Your task to perform on an android device: check out phone information Image 0: 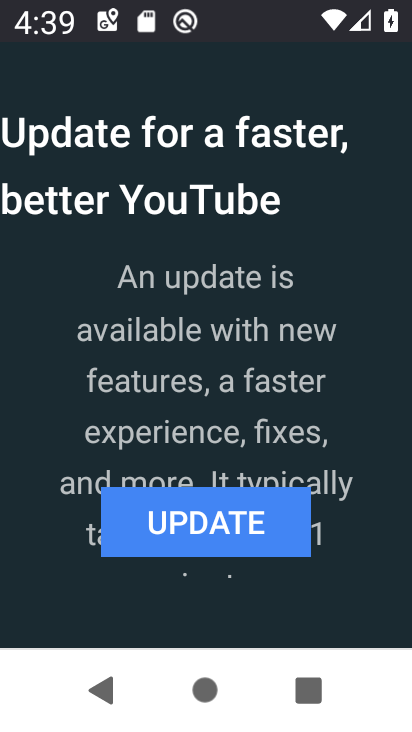
Step 0: press home button
Your task to perform on an android device: check out phone information Image 1: 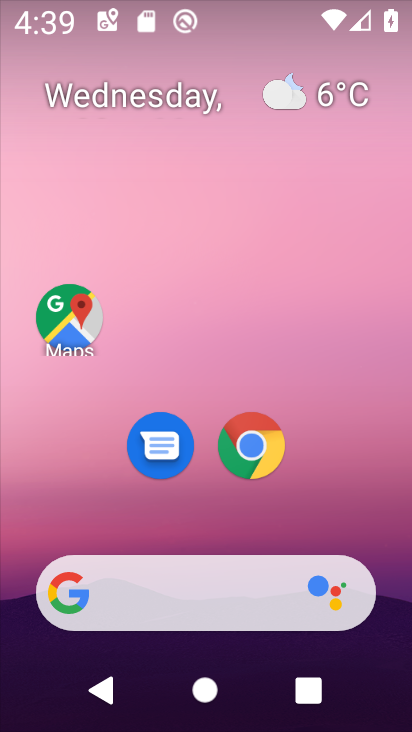
Step 1: drag from (203, 541) to (233, 78)
Your task to perform on an android device: check out phone information Image 2: 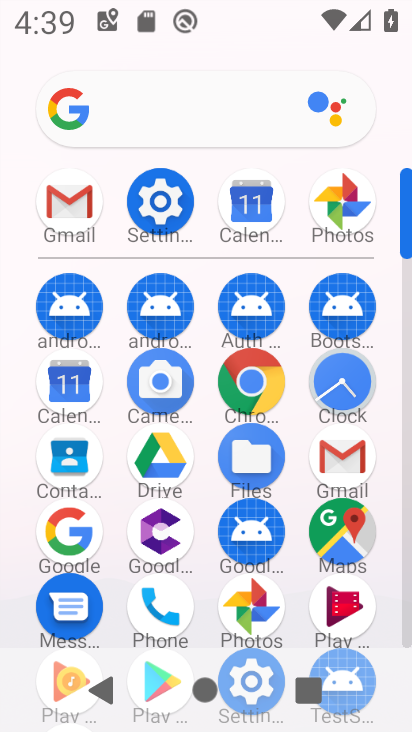
Step 2: click (158, 216)
Your task to perform on an android device: check out phone information Image 3: 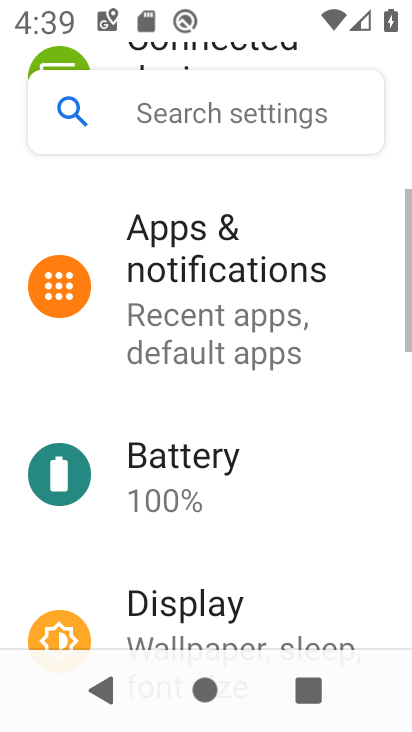
Step 3: drag from (187, 503) to (222, 47)
Your task to perform on an android device: check out phone information Image 4: 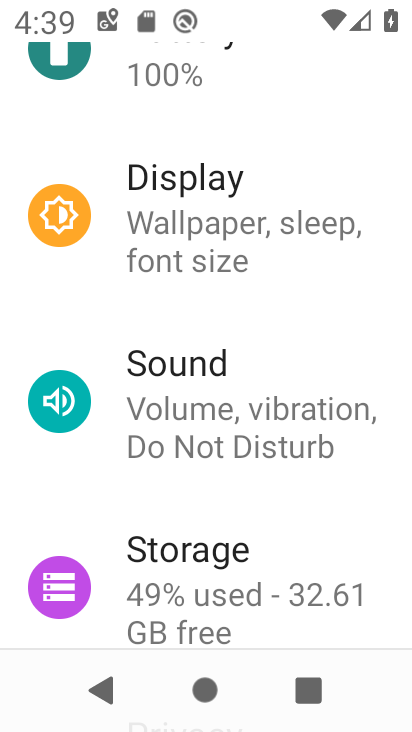
Step 4: drag from (164, 566) to (206, 99)
Your task to perform on an android device: check out phone information Image 5: 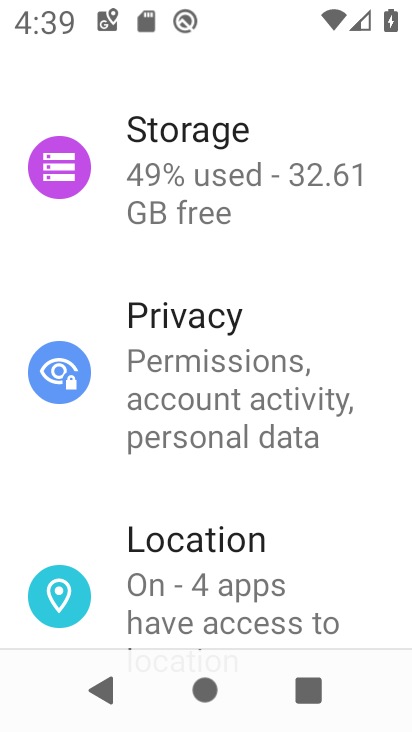
Step 5: drag from (216, 524) to (254, 72)
Your task to perform on an android device: check out phone information Image 6: 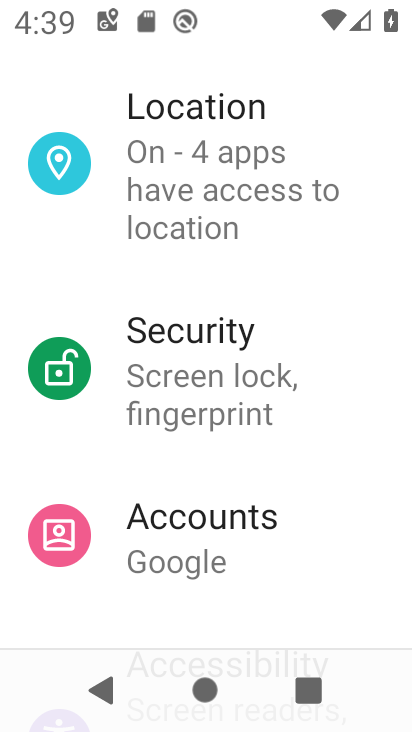
Step 6: drag from (208, 589) to (247, 91)
Your task to perform on an android device: check out phone information Image 7: 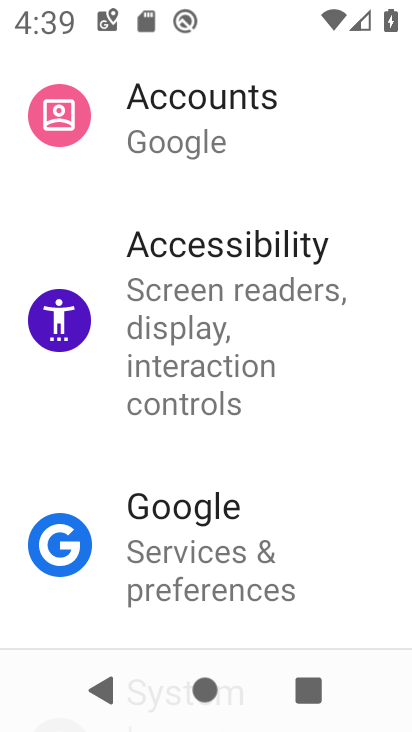
Step 7: drag from (184, 602) to (221, 228)
Your task to perform on an android device: check out phone information Image 8: 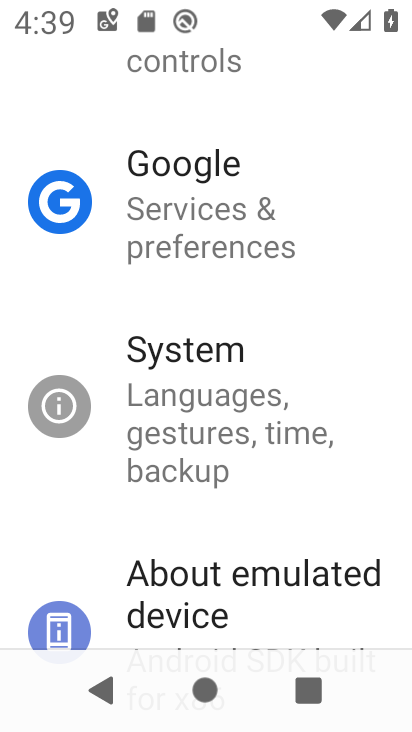
Step 8: drag from (201, 602) to (238, 48)
Your task to perform on an android device: check out phone information Image 9: 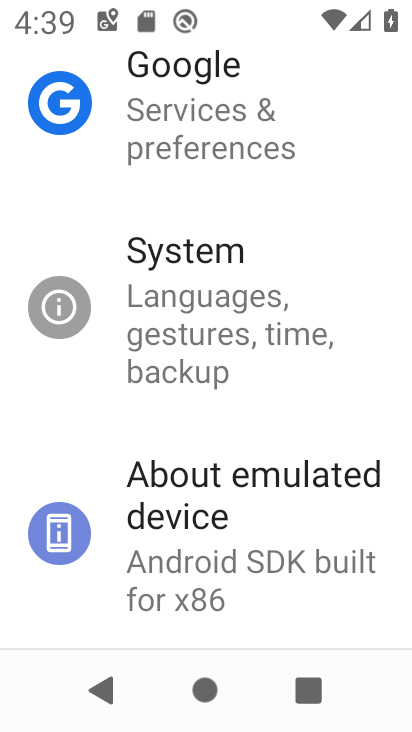
Step 9: click (196, 495)
Your task to perform on an android device: check out phone information Image 10: 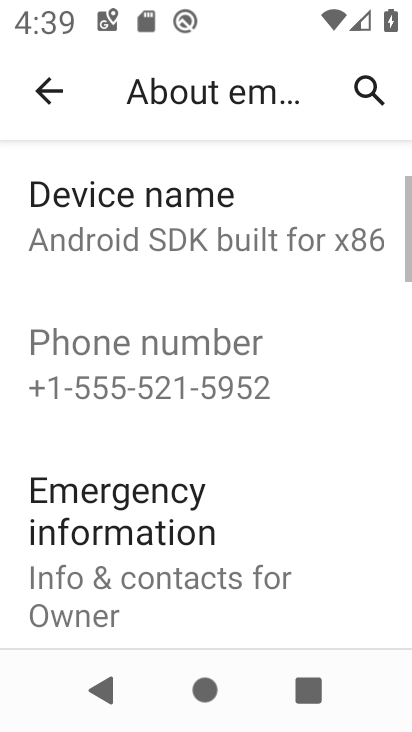
Step 10: task complete